Your task to perform on an android device: Open Chrome and go to settings Image 0: 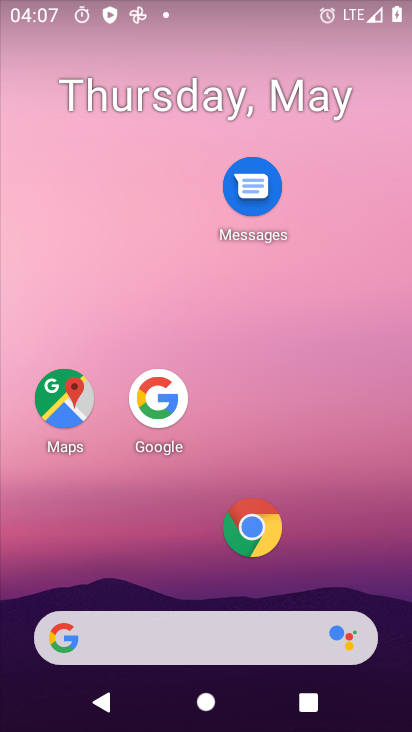
Step 0: drag from (152, 583) to (241, 316)
Your task to perform on an android device: Open Chrome and go to settings Image 1: 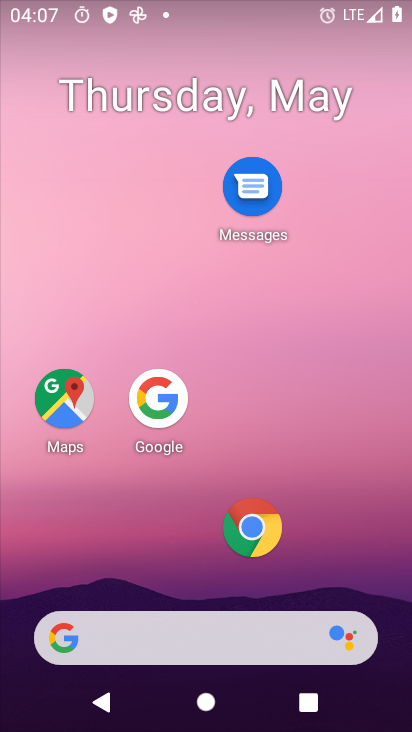
Step 1: drag from (212, 509) to (269, 314)
Your task to perform on an android device: Open Chrome and go to settings Image 2: 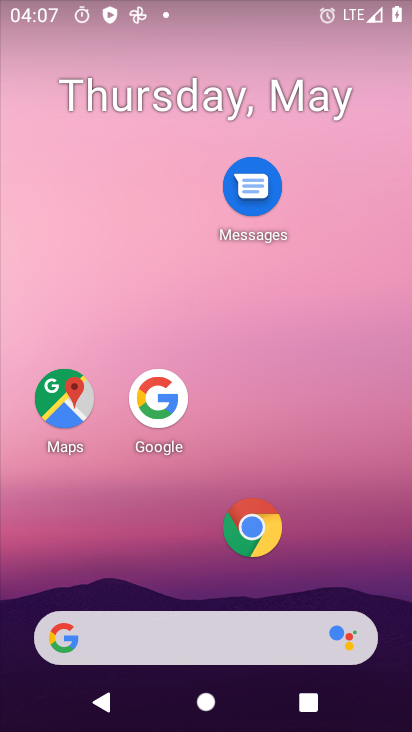
Step 2: click (248, 534)
Your task to perform on an android device: Open Chrome and go to settings Image 3: 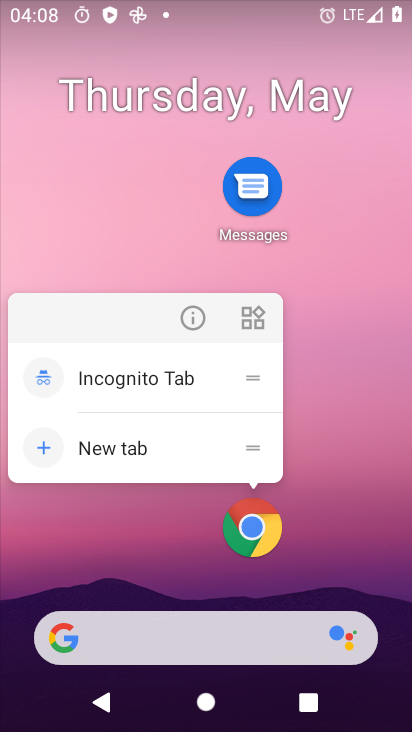
Step 3: click (188, 322)
Your task to perform on an android device: Open Chrome and go to settings Image 4: 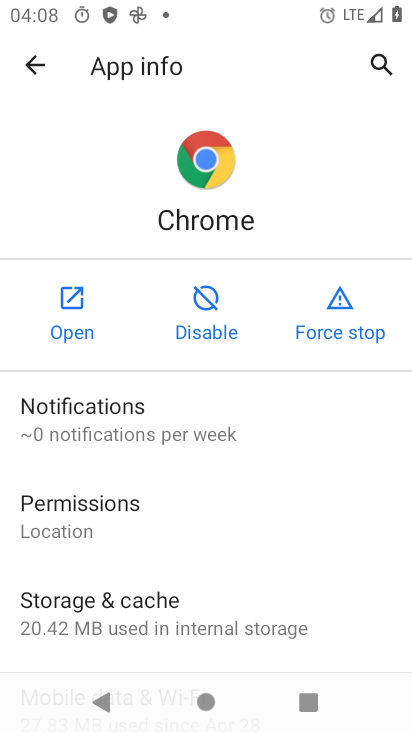
Step 4: click (75, 300)
Your task to perform on an android device: Open Chrome and go to settings Image 5: 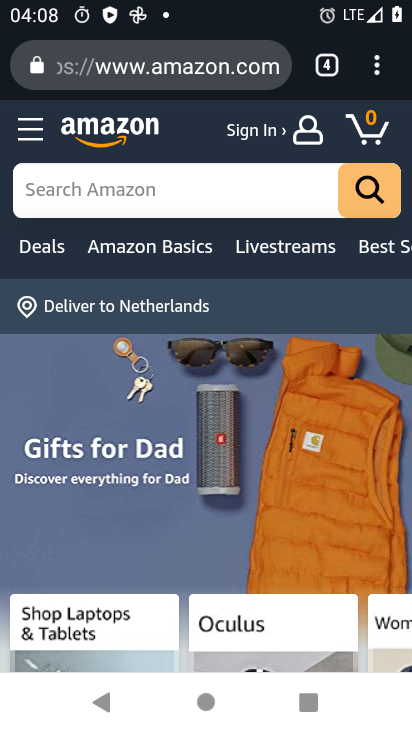
Step 5: click (374, 73)
Your task to perform on an android device: Open Chrome and go to settings Image 6: 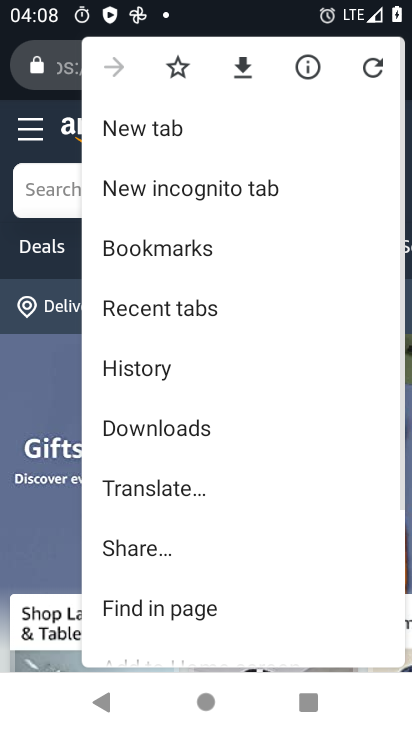
Step 6: drag from (213, 564) to (311, 96)
Your task to perform on an android device: Open Chrome and go to settings Image 7: 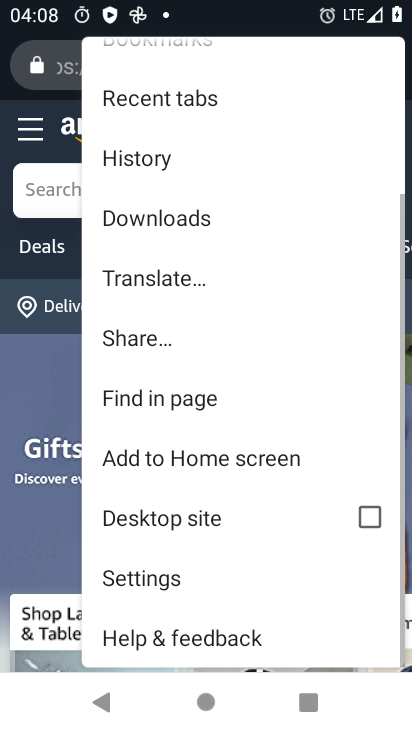
Step 7: click (133, 588)
Your task to perform on an android device: Open Chrome and go to settings Image 8: 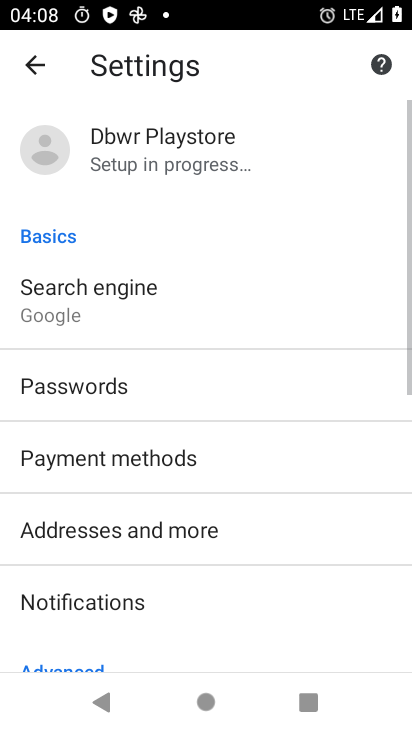
Step 8: task complete